Your task to perform on an android device: open a new tab in the chrome app Image 0: 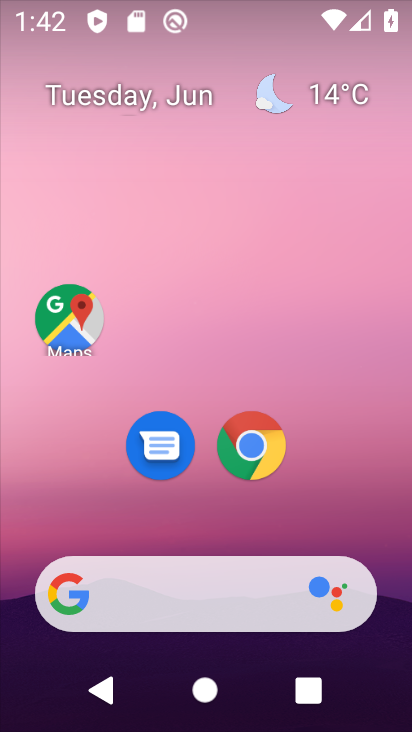
Step 0: drag from (361, 520) to (339, 84)
Your task to perform on an android device: open a new tab in the chrome app Image 1: 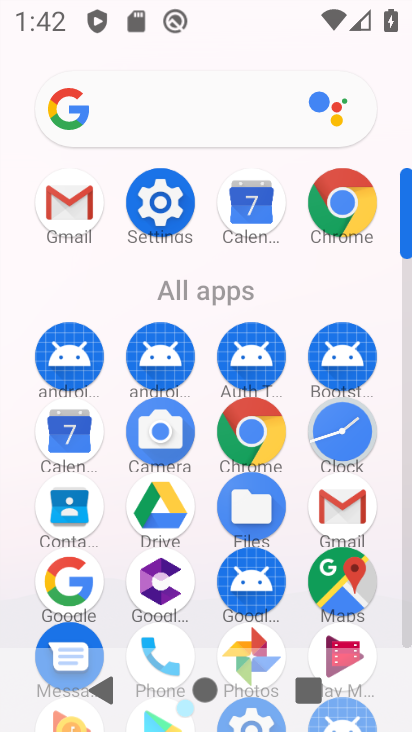
Step 1: click (261, 442)
Your task to perform on an android device: open a new tab in the chrome app Image 2: 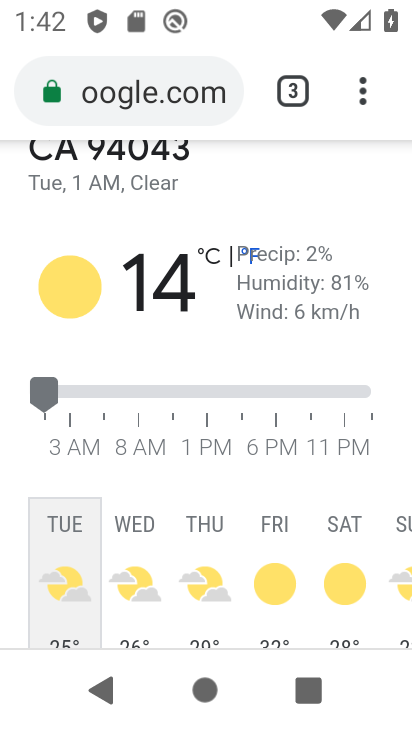
Step 2: click (281, 91)
Your task to perform on an android device: open a new tab in the chrome app Image 3: 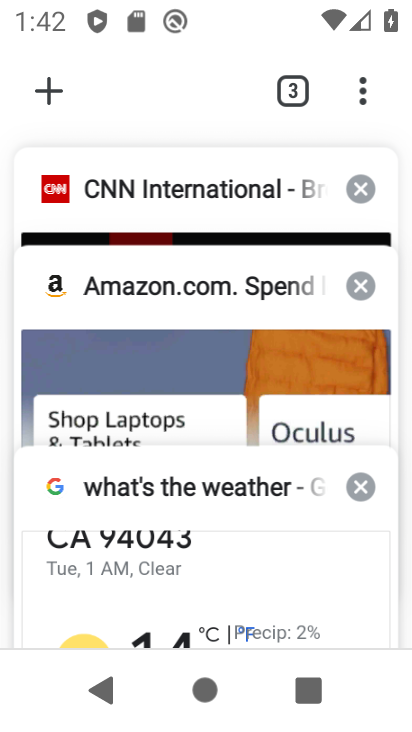
Step 3: click (46, 79)
Your task to perform on an android device: open a new tab in the chrome app Image 4: 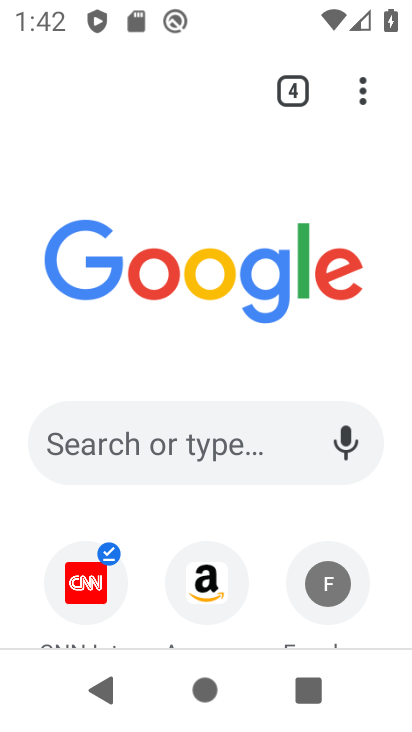
Step 4: task complete